Your task to perform on an android device: turn off priority inbox in the gmail app Image 0: 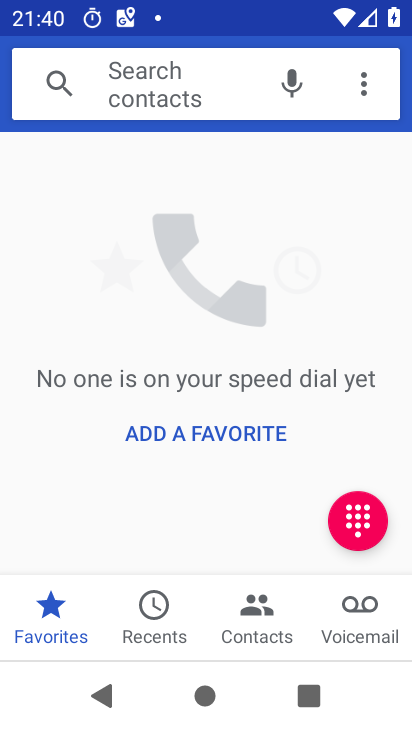
Step 0: drag from (171, 518) to (272, 275)
Your task to perform on an android device: turn off priority inbox in the gmail app Image 1: 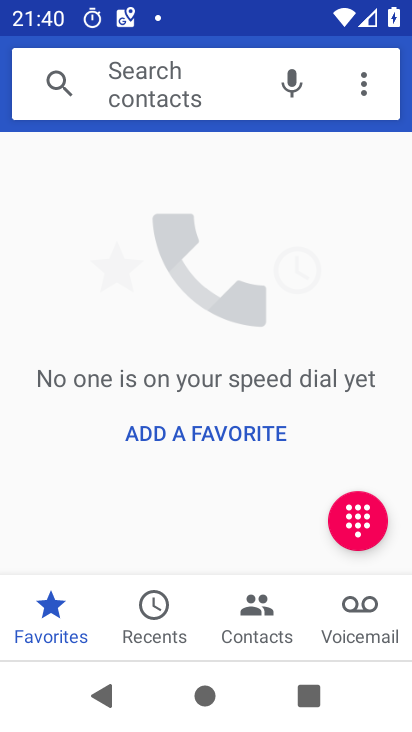
Step 1: press home button
Your task to perform on an android device: turn off priority inbox in the gmail app Image 2: 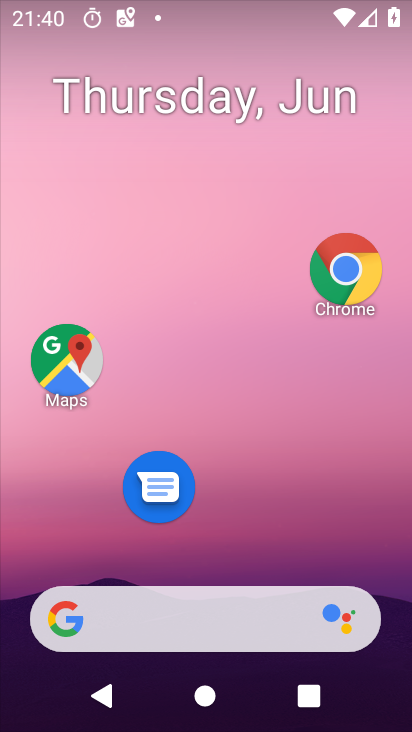
Step 2: drag from (195, 573) to (263, 139)
Your task to perform on an android device: turn off priority inbox in the gmail app Image 3: 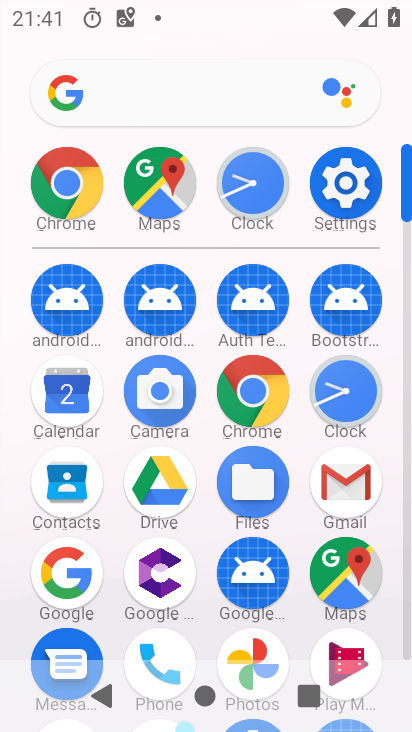
Step 3: click (321, 491)
Your task to perform on an android device: turn off priority inbox in the gmail app Image 4: 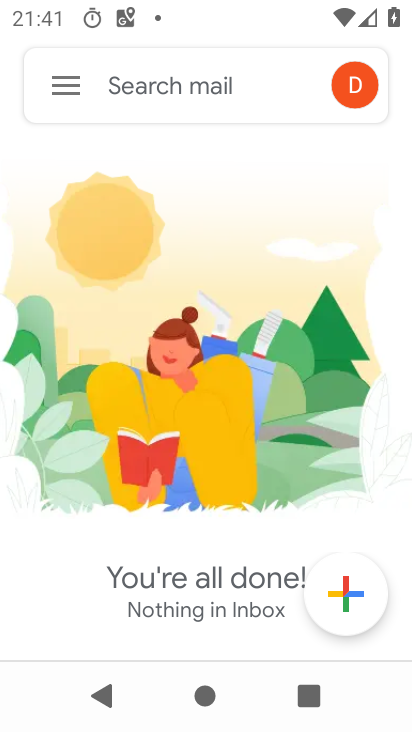
Step 4: drag from (191, 559) to (240, 263)
Your task to perform on an android device: turn off priority inbox in the gmail app Image 5: 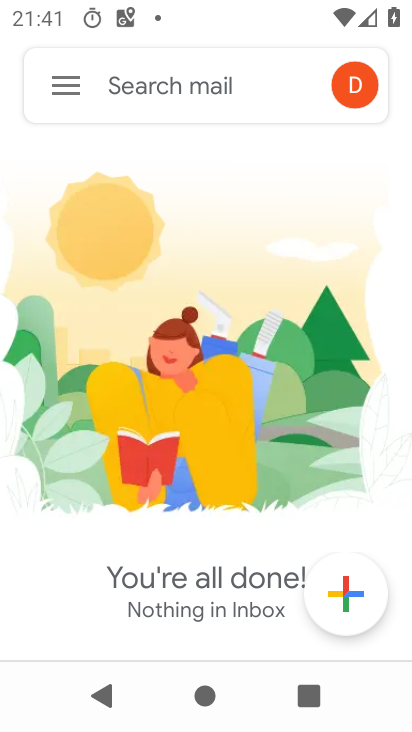
Step 5: drag from (221, 589) to (225, 550)
Your task to perform on an android device: turn off priority inbox in the gmail app Image 6: 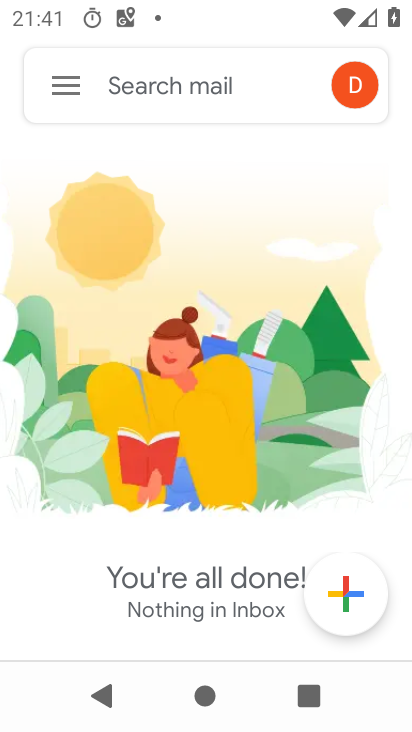
Step 6: click (55, 91)
Your task to perform on an android device: turn off priority inbox in the gmail app Image 7: 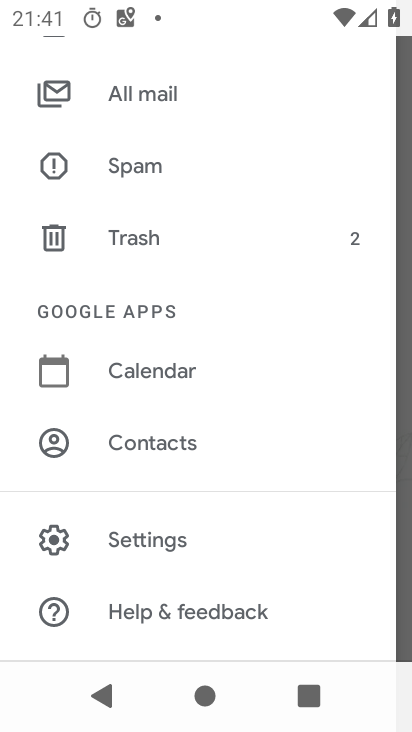
Step 7: click (170, 555)
Your task to perform on an android device: turn off priority inbox in the gmail app Image 8: 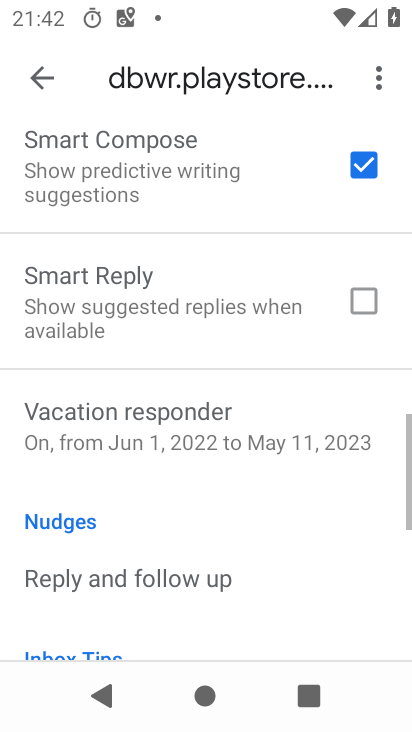
Step 8: drag from (182, 320) to (101, 730)
Your task to perform on an android device: turn off priority inbox in the gmail app Image 9: 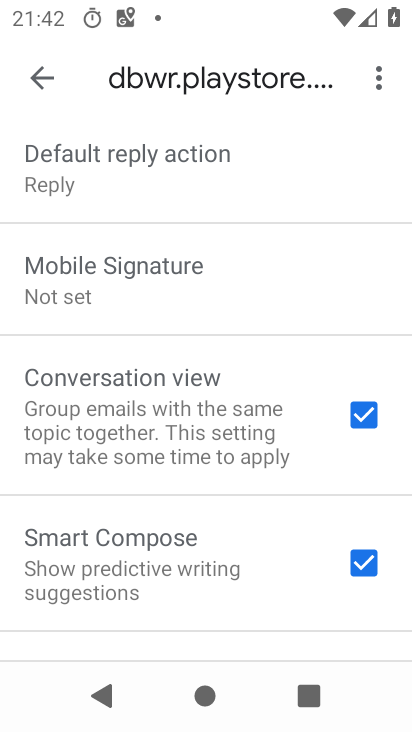
Step 9: drag from (213, 229) to (308, 667)
Your task to perform on an android device: turn off priority inbox in the gmail app Image 10: 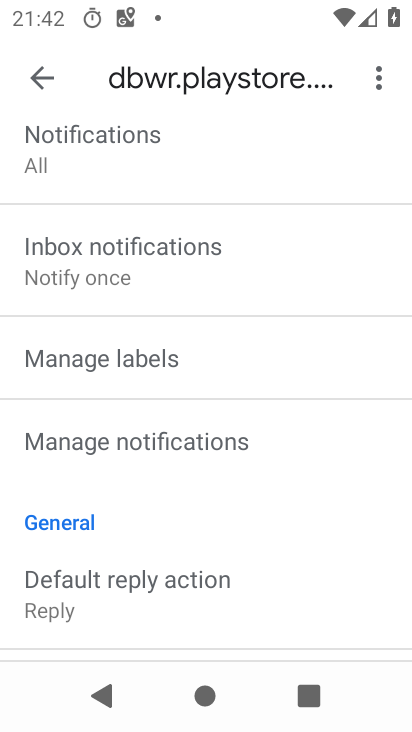
Step 10: drag from (185, 229) to (248, 715)
Your task to perform on an android device: turn off priority inbox in the gmail app Image 11: 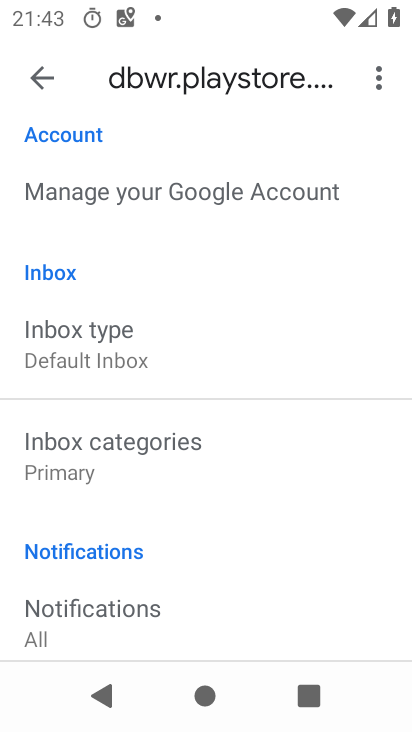
Step 11: click (155, 337)
Your task to perform on an android device: turn off priority inbox in the gmail app Image 12: 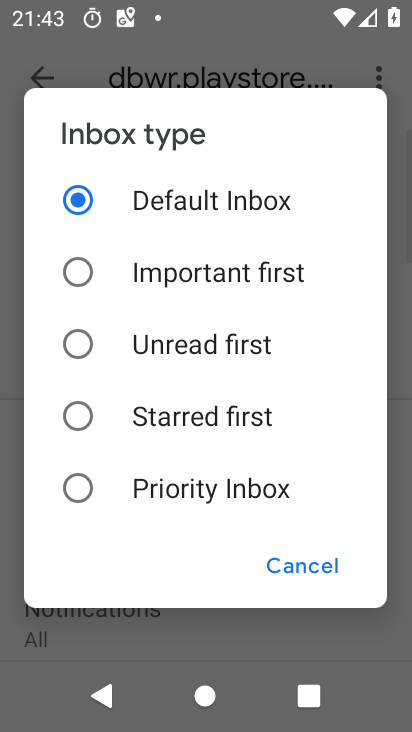
Step 12: task complete